Your task to perform on an android device: Open Youtube and go to "Your channel" Image 0: 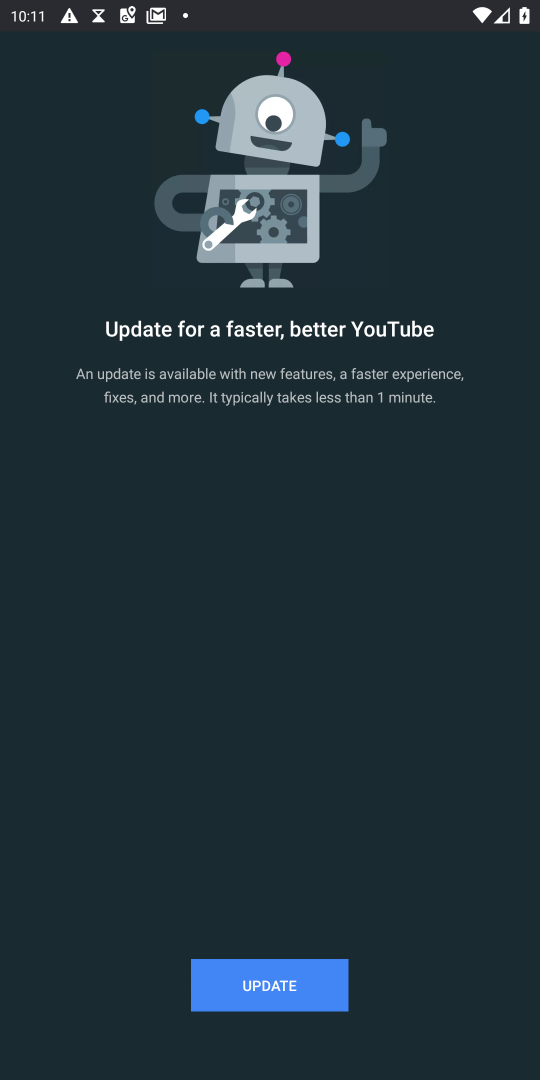
Step 0: press home button
Your task to perform on an android device: Open Youtube and go to "Your channel" Image 1: 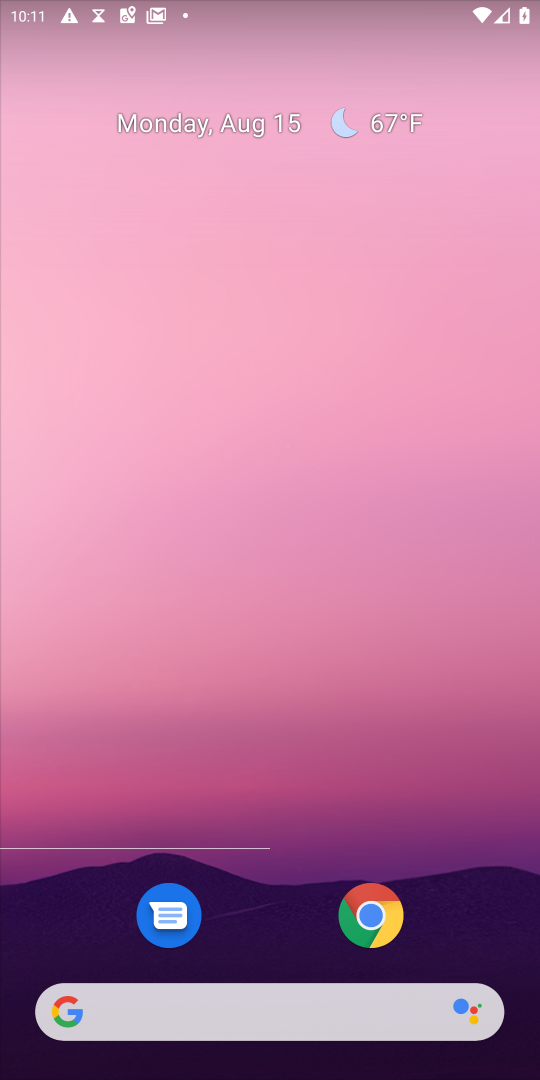
Step 1: drag from (319, 644) to (363, 173)
Your task to perform on an android device: Open Youtube and go to "Your channel" Image 2: 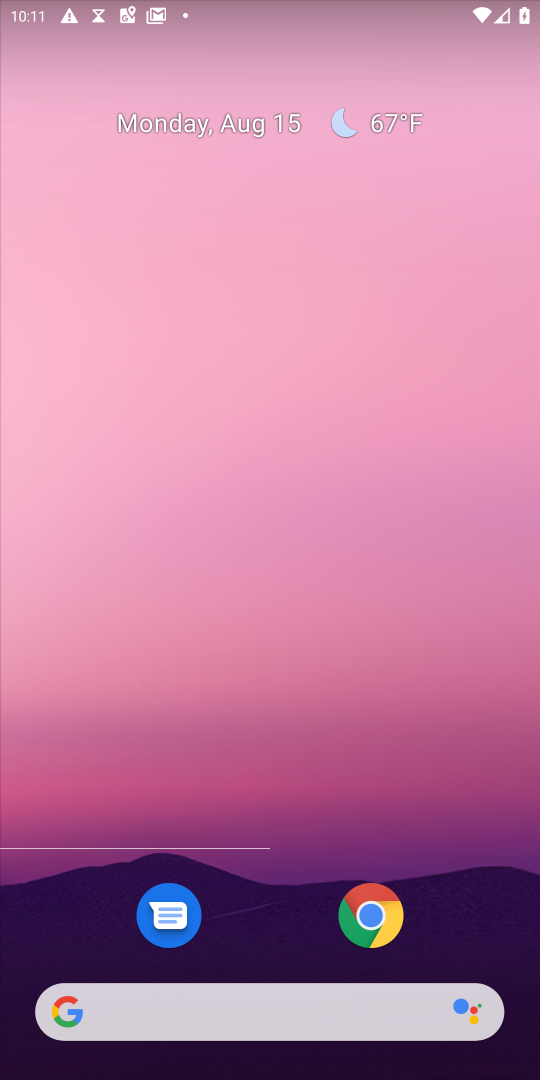
Step 2: drag from (268, 891) to (287, 177)
Your task to perform on an android device: Open Youtube and go to "Your channel" Image 3: 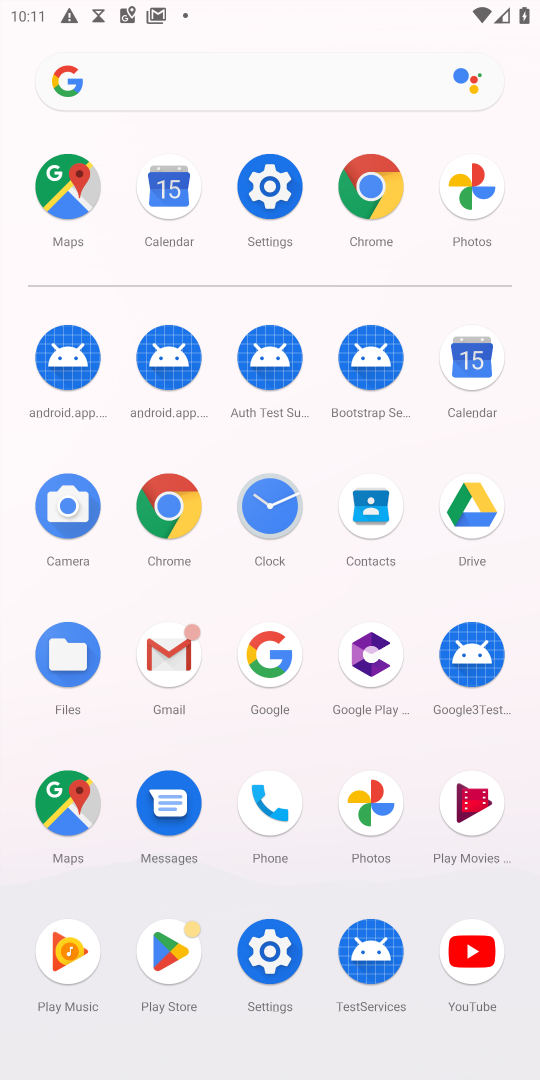
Step 3: click (460, 943)
Your task to perform on an android device: Open Youtube and go to "Your channel" Image 4: 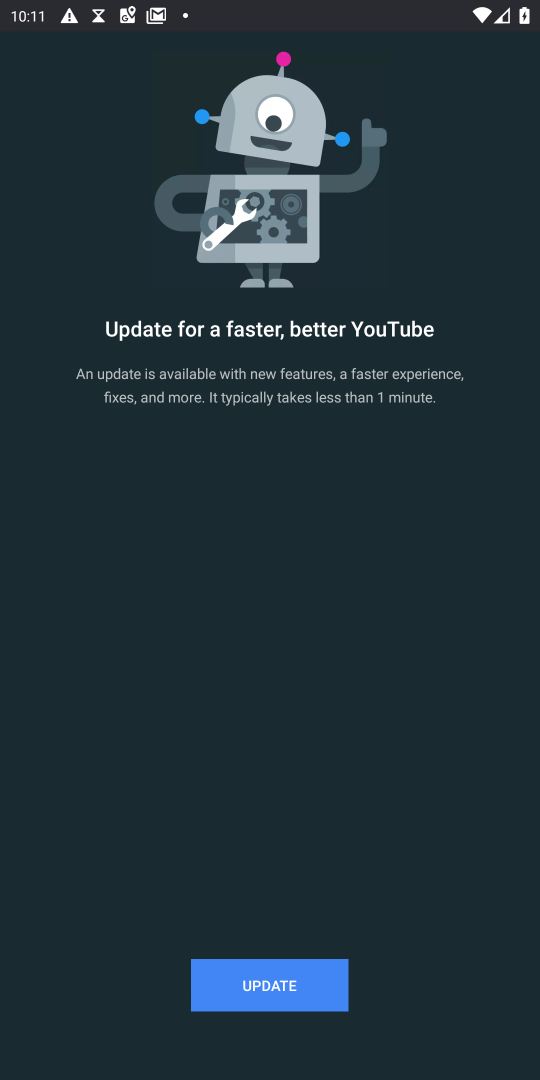
Step 4: click (311, 990)
Your task to perform on an android device: Open Youtube and go to "Your channel" Image 5: 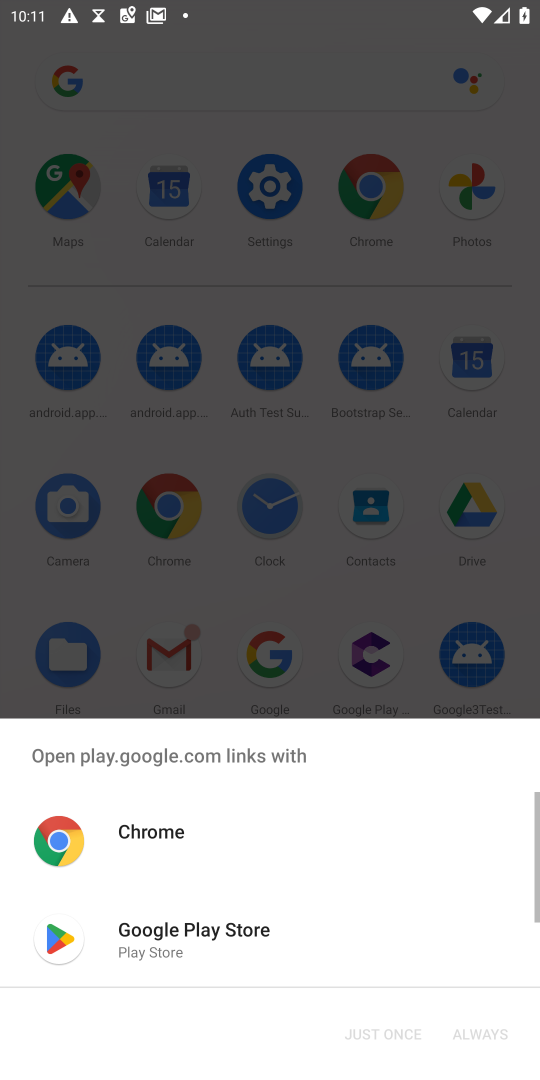
Step 5: click (109, 926)
Your task to perform on an android device: Open Youtube and go to "Your channel" Image 6: 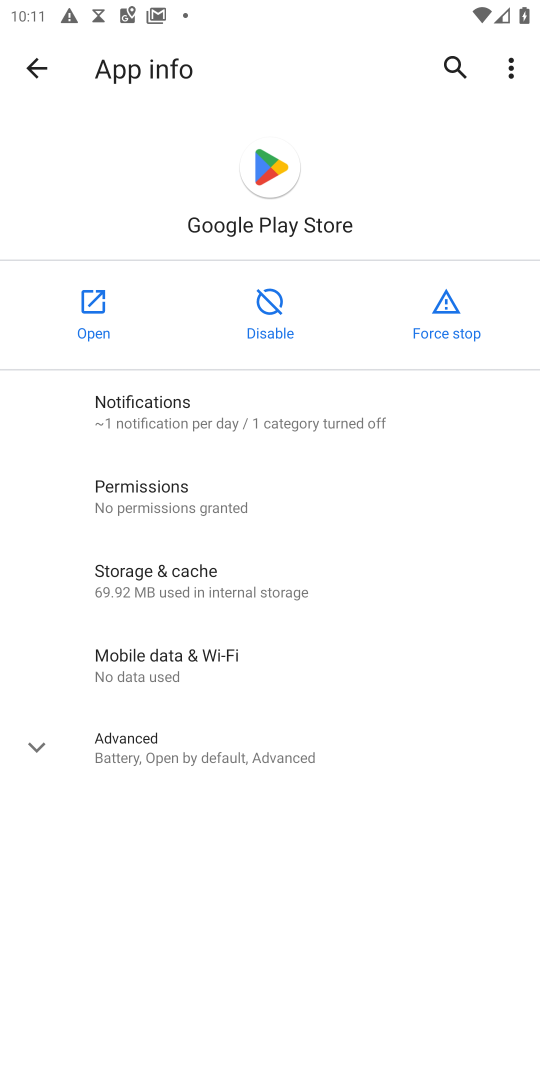
Step 6: click (16, 66)
Your task to perform on an android device: Open Youtube and go to "Your channel" Image 7: 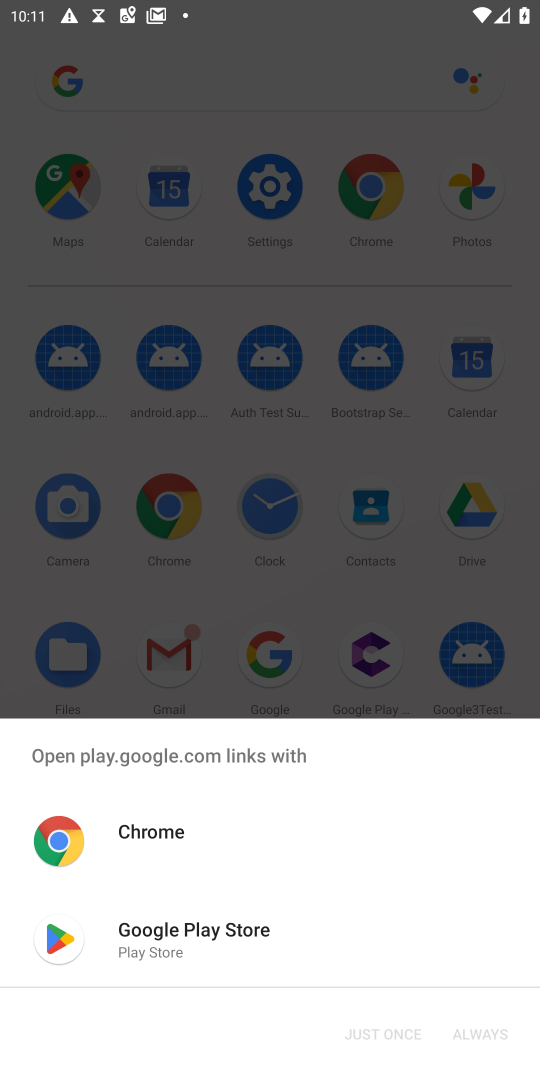
Step 7: click (145, 943)
Your task to perform on an android device: Open Youtube and go to "Your channel" Image 8: 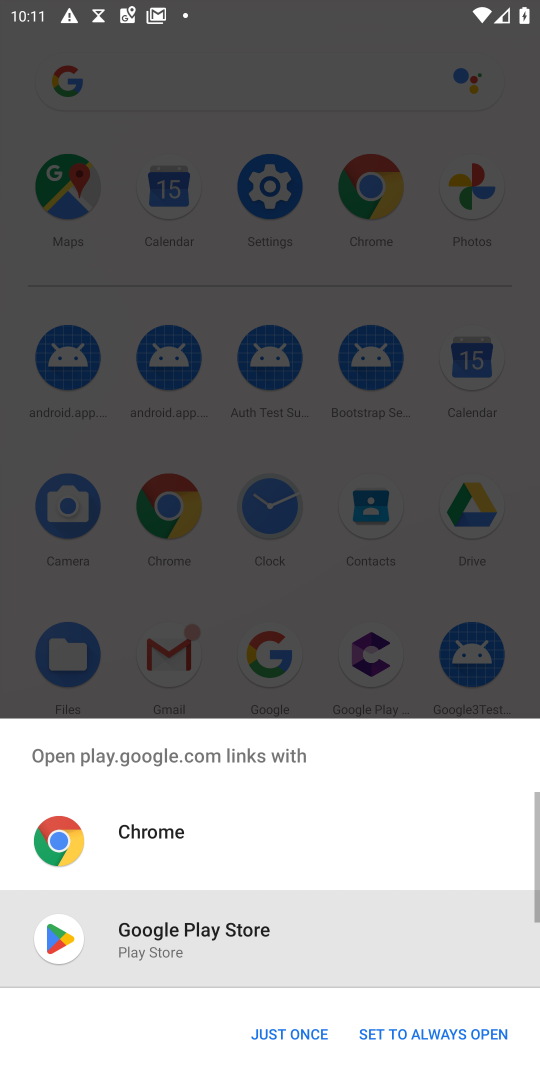
Step 8: click (296, 1035)
Your task to perform on an android device: Open Youtube and go to "Your channel" Image 9: 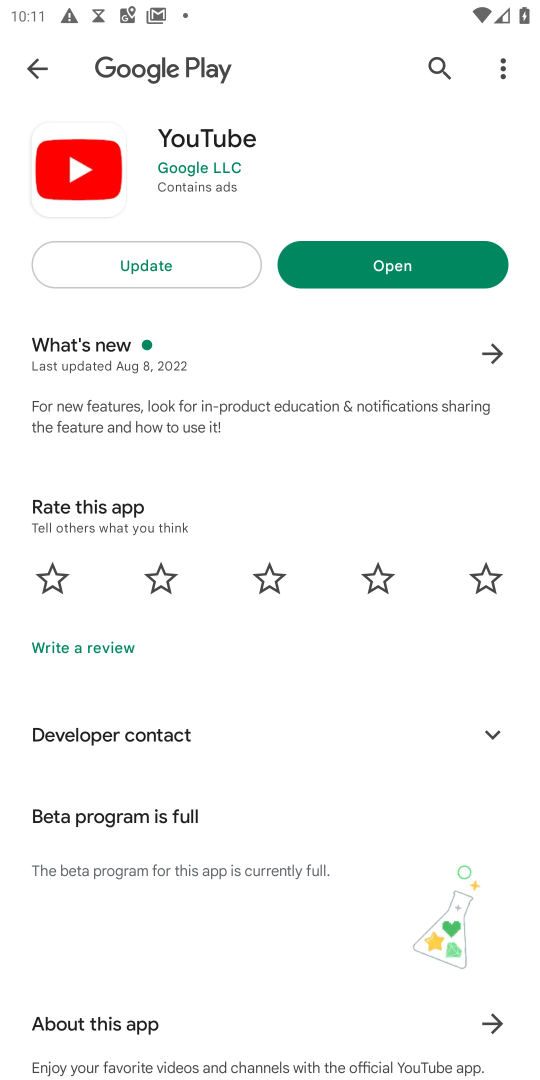
Step 9: click (123, 262)
Your task to perform on an android device: Open Youtube and go to "Your channel" Image 10: 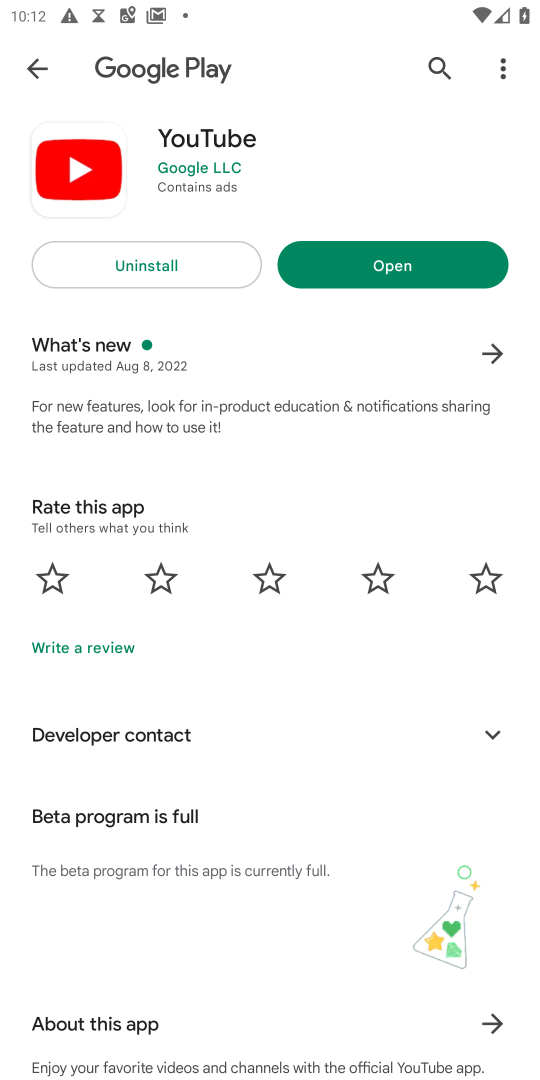
Step 10: click (409, 254)
Your task to perform on an android device: Open Youtube and go to "Your channel" Image 11: 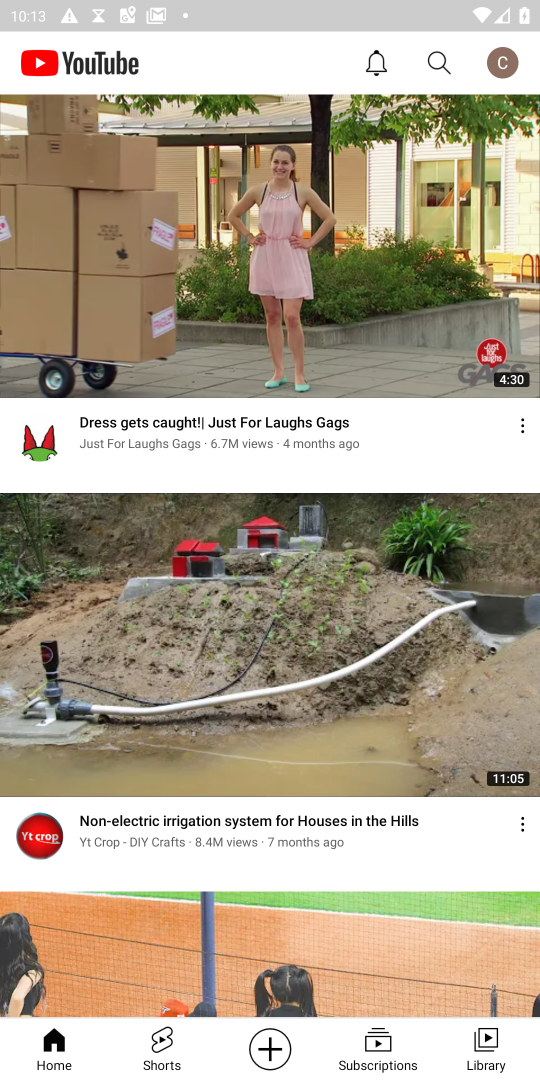
Step 11: click (507, 59)
Your task to perform on an android device: Open Youtube and go to "Your channel" Image 12: 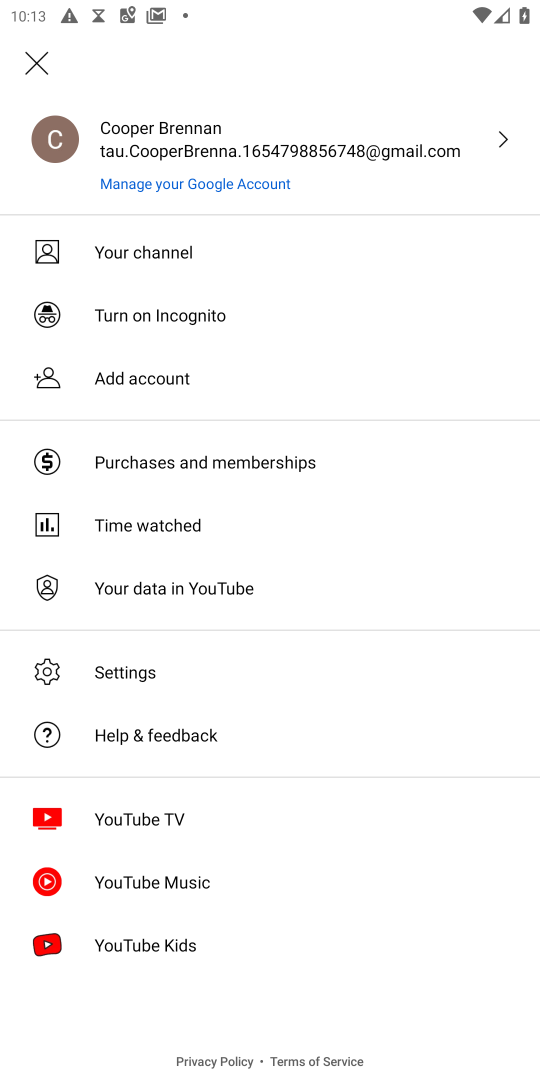
Step 12: click (146, 248)
Your task to perform on an android device: Open Youtube and go to "Your channel" Image 13: 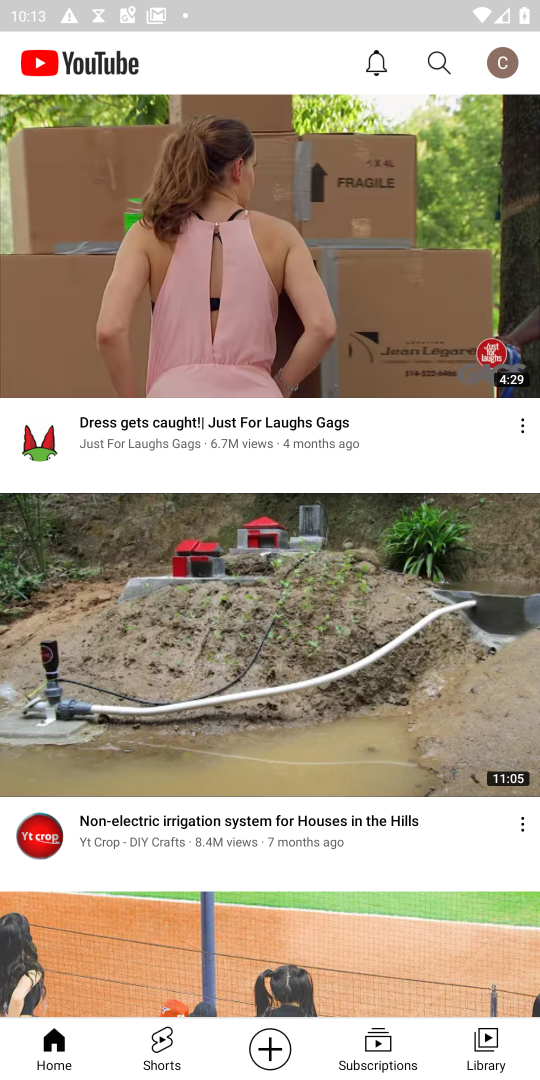
Step 13: click (509, 61)
Your task to perform on an android device: Open Youtube and go to "Your channel" Image 14: 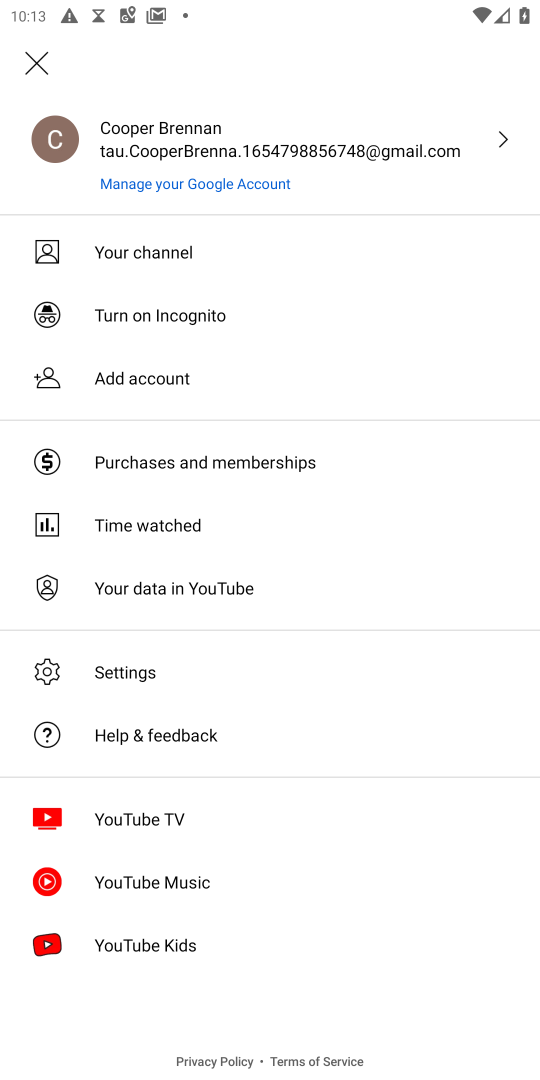
Step 14: click (177, 252)
Your task to perform on an android device: Open Youtube and go to "Your channel" Image 15: 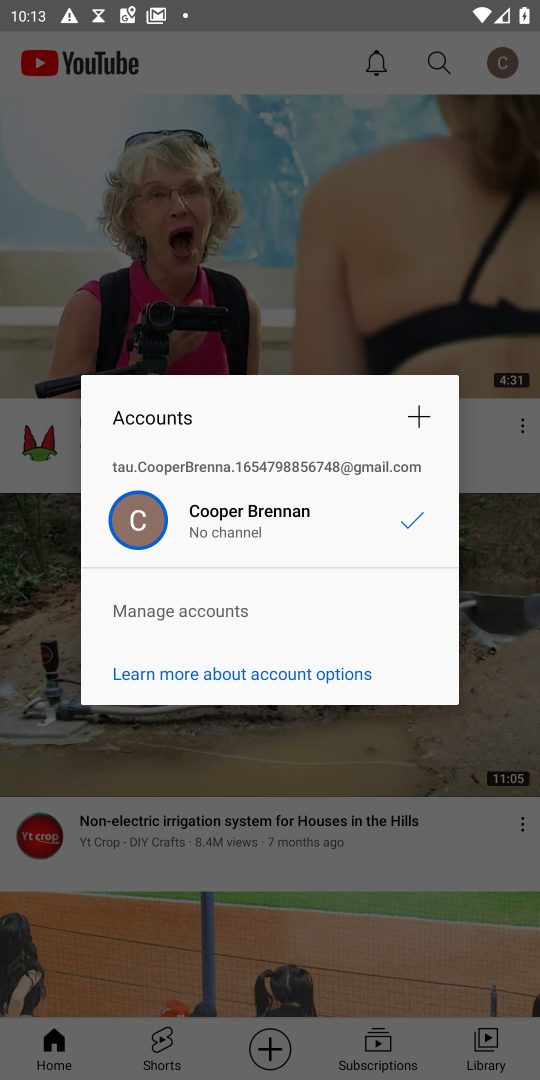
Step 15: click (416, 512)
Your task to perform on an android device: Open Youtube and go to "Your channel" Image 16: 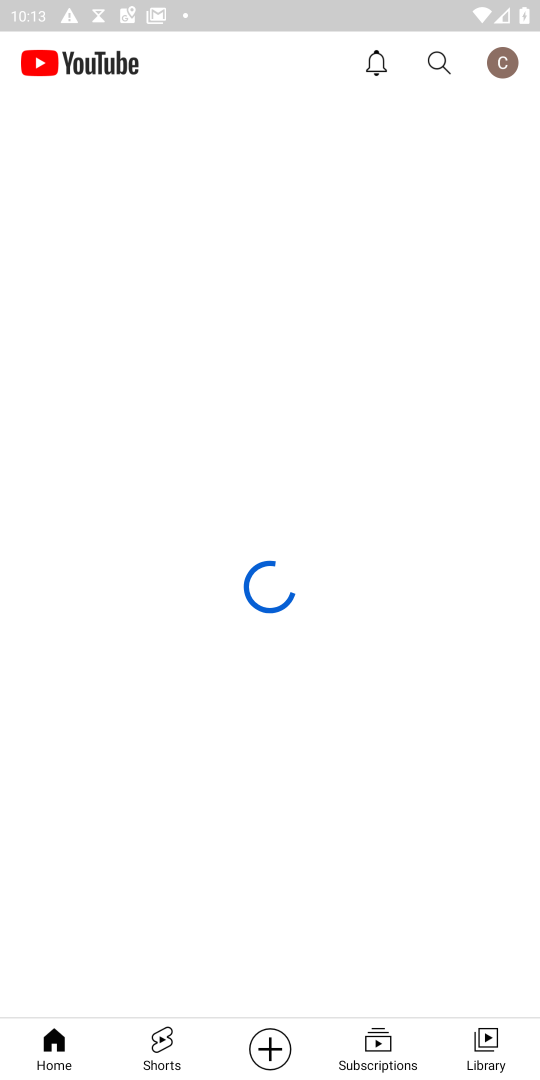
Step 16: task complete